Your task to perform on an android device: Go to battery settings Image 0: 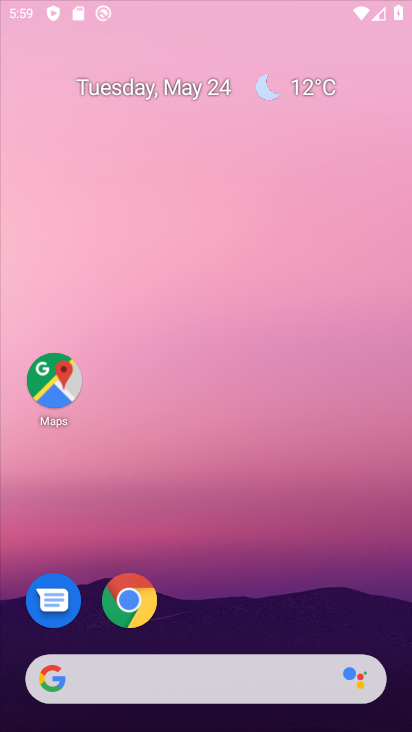
Step 0: drag from (164, 659) to (262, 49)
Your task to perform on an android device: Go to battery settings Image 1: 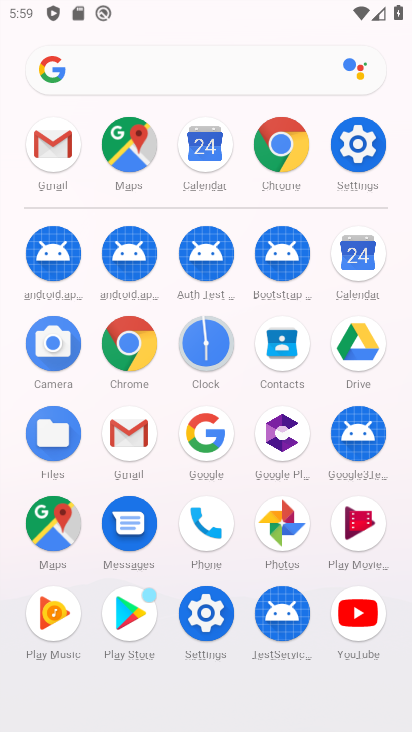
Step 1: click (369, 155)
Your task to perform on an android device: Go to battery settings Image 2: 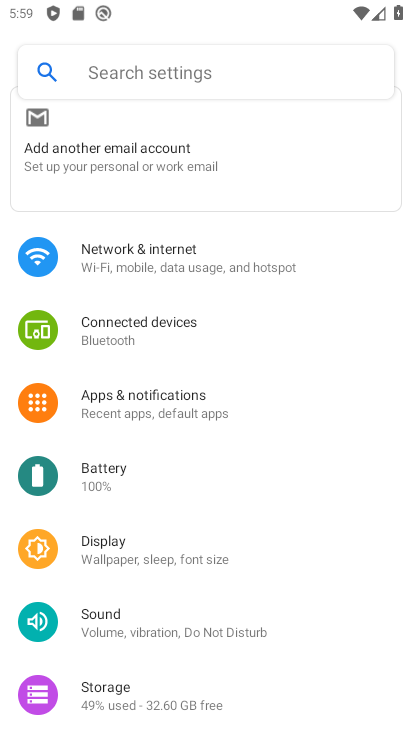
Step 2: click (120, 484)
Your task to perform on an android device: Go to battery settings Image 3: 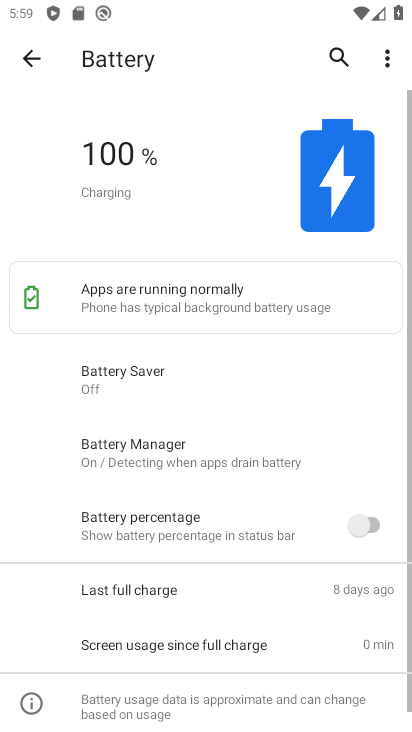
Step 3: task complete